Your task to perform on an android device: choose inbox layout in the gmail app Image 0: 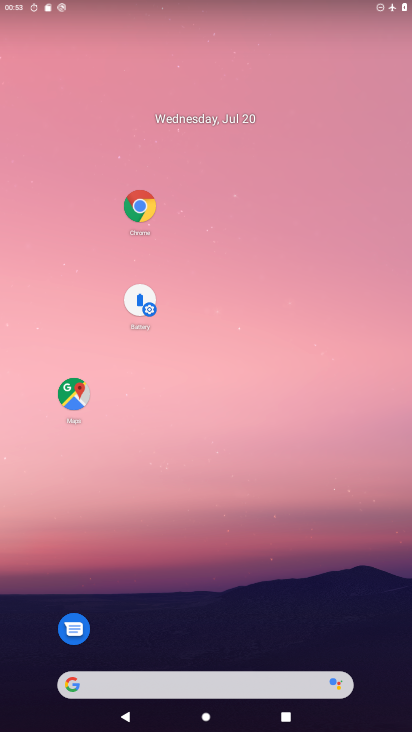
Step 0: drag from (276, 429) to (290, 387)
Your task to perform on an android device: choose inbox layout in the gmail app Image 1: 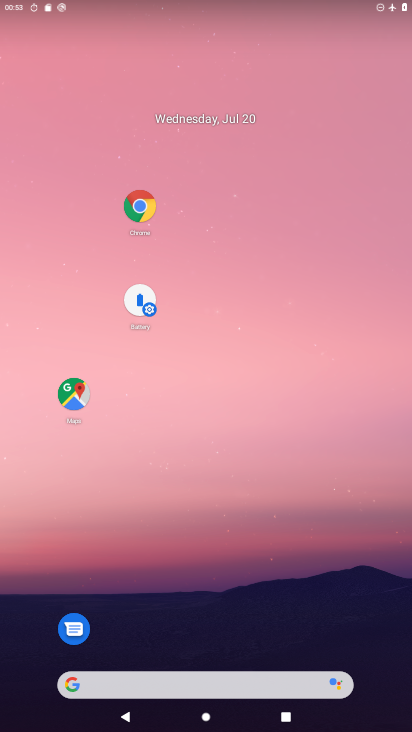
Step 1: drag from (184, 556) to (316, 28)
Your task to perform on an android device: choose inbox layout in the gmail app Image 2: 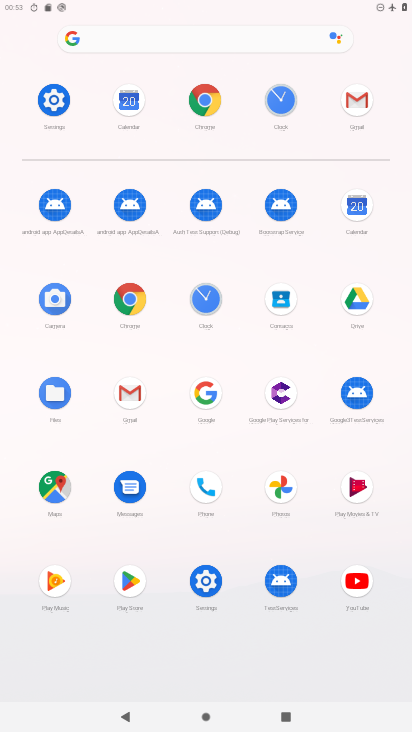
Step 2: click (123, 378)
Your task to perform on an android device: choose inbox layout in the gmail app Image 3: 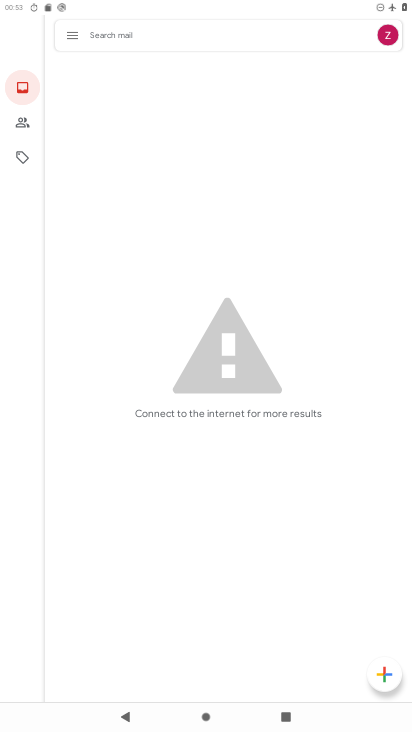
Step 3: click (68, 31)
Your task to perform on an android device: choose inbox layout in the gmail app Image 4: 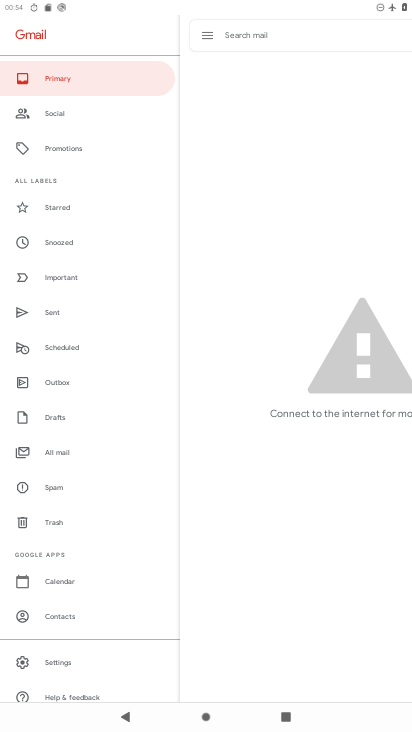
Step 4: click (246, 186)
Your task to perform on an android device: choose inbox layout in the gmail app Image 5: 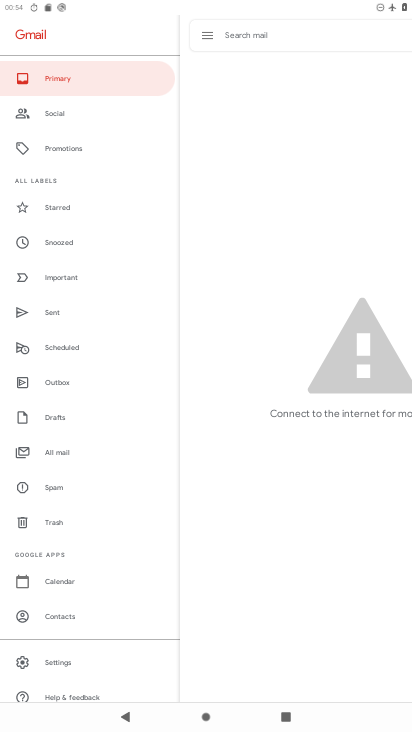
Step 5: drag from (294, 507) to (323, 401)
Your task to perform on an android device: choose inbox layout in the gmail app Image 6: 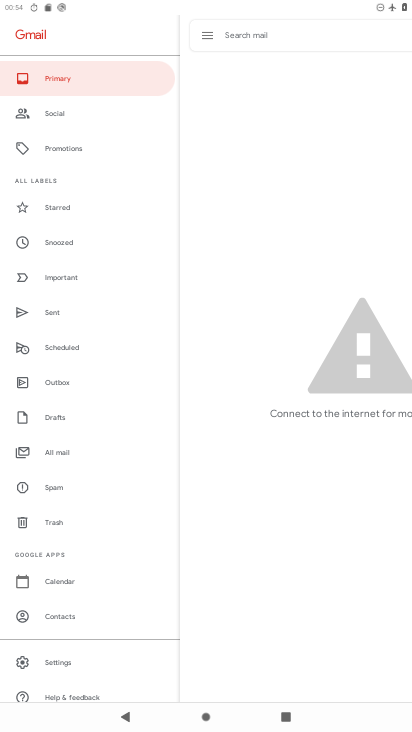
Step 6: click (35, 80)
Your task to perform on an android device: choose inbox layout in the gmail app Image 7: 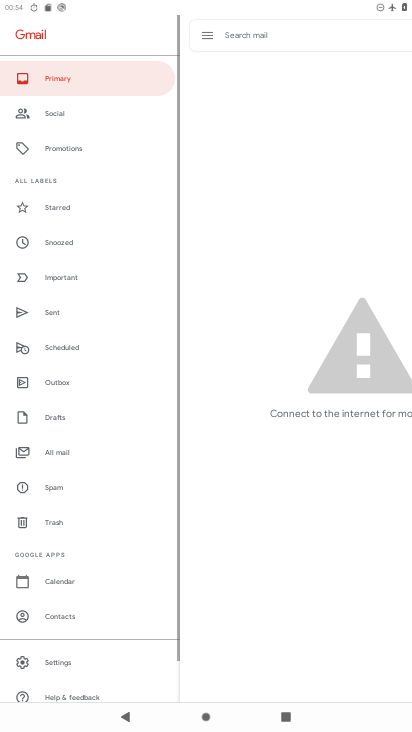
Step 7: drag from (221, 547) to (231, 492)
Your task to perform on an android device: choose inbox layout in the gmail app Image 8: 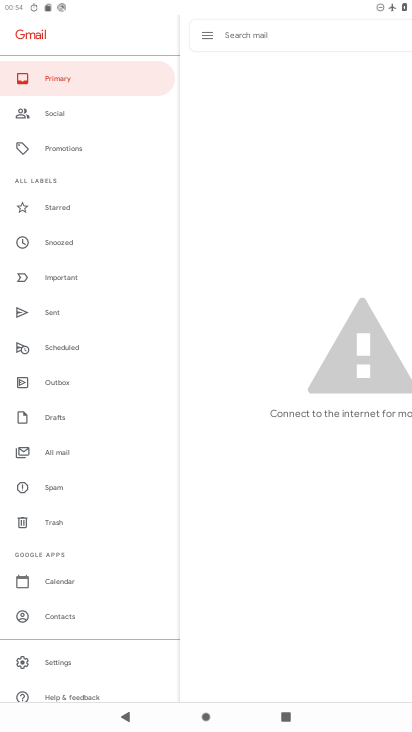
Step 8: click (55, 78)
Your task to perform on an android device: choose inbox layout in the gmail app Image 9: 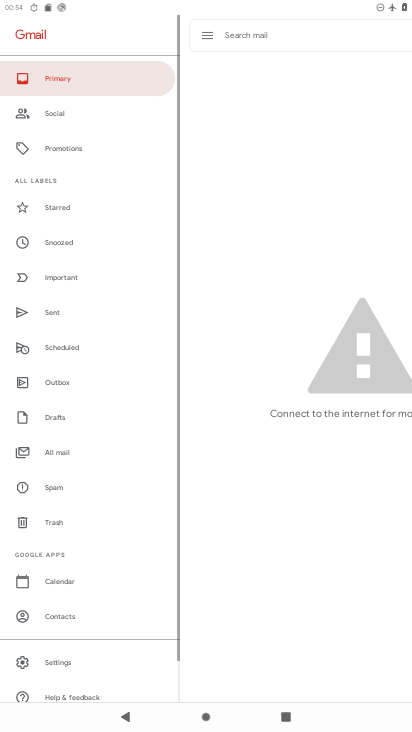
Step 9: click (325, 368)
Your task to perform on an android device: choose inbox layout in the gmail app Image 10: 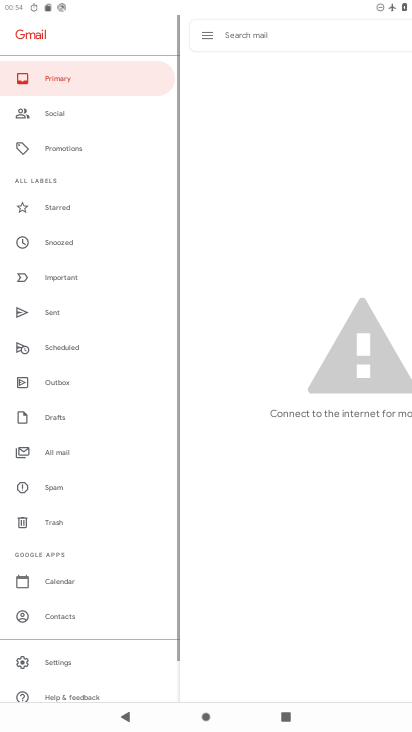
Step 10: click (302, 557)
Your task to perform on an android device: choose inbox layout in the gmail app Image 11: 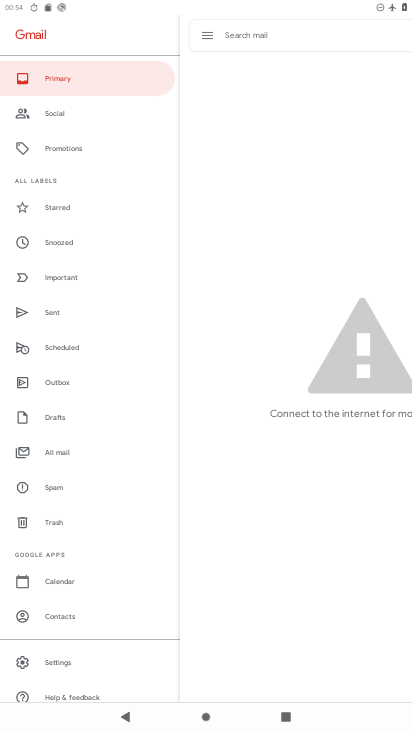
Step 11: click (252, 430)
Your task to perform on an android device: choose inbox layout in the gmail app Image 12: 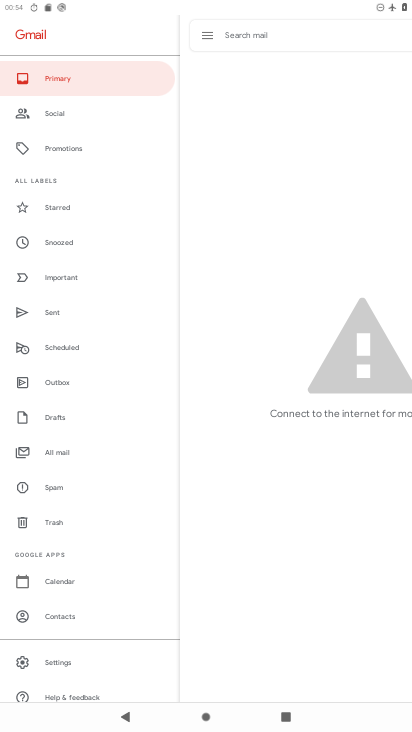
Step 12: task complete